Your task to perform on an android device: remove spam from my inbox in the gmail app Image 0: 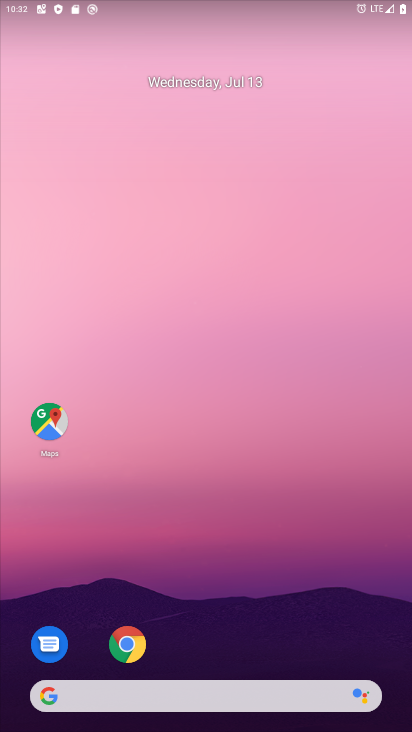
Step 0: drag from (194, 729) to (194, 628)
Your task to perform on an android device: remove spam from my inbox in the gmail app Image 1: 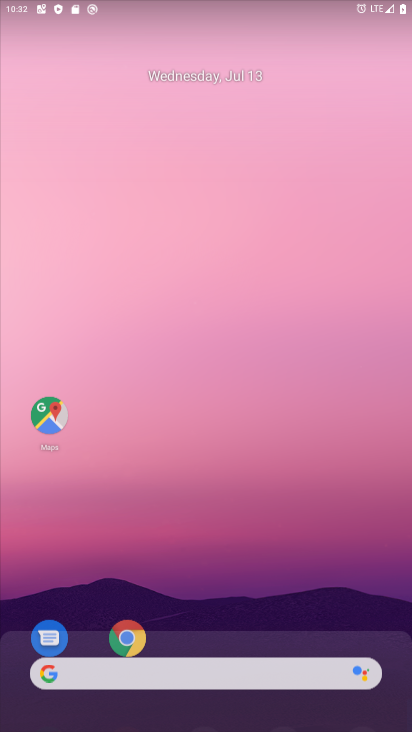
Step 1: drag from (167, 246) to (163, 120)
Your task to perform on an android device: remove spam from my inbox in the gmail app Image 2: 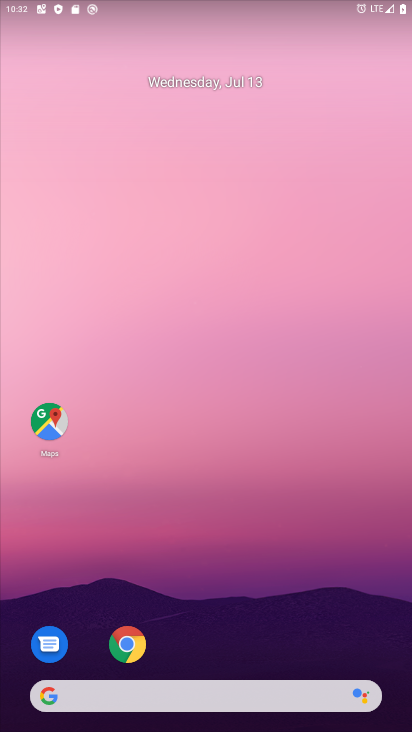
Step 2: click (245, 726)
Your task to perform on an android device: remove spam from my inbox in the gmail app Image 3: 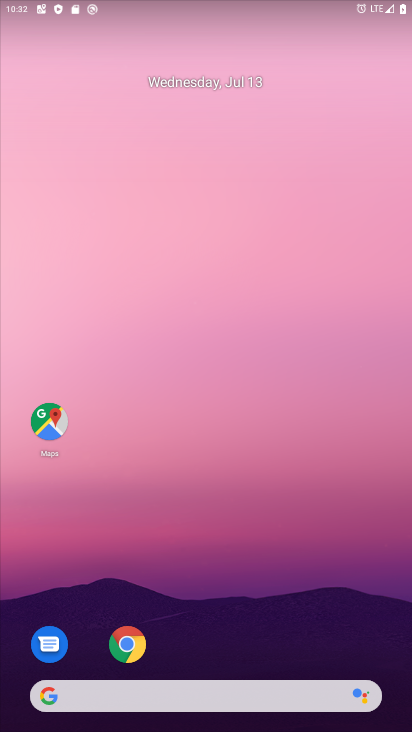
Step 3: click (204, 205)
Your task to perform on an android device: remove spam from my inbox in the gmail app Image 4: 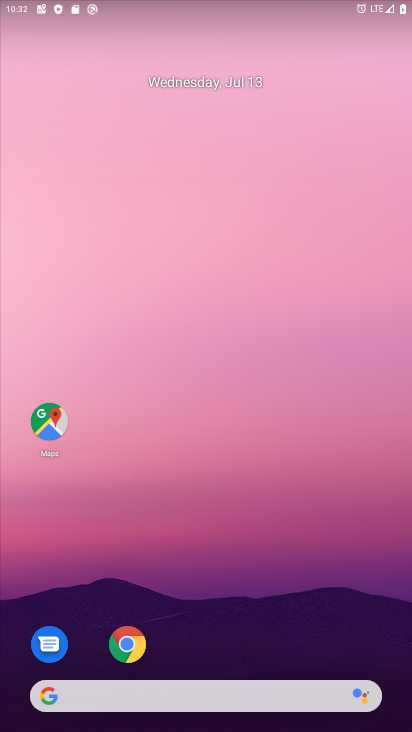
Step 4: drag from (238, 724) to (238, 68)
Your task to perform on an android device: remove spam from my inbox in the gmail app Image 5: 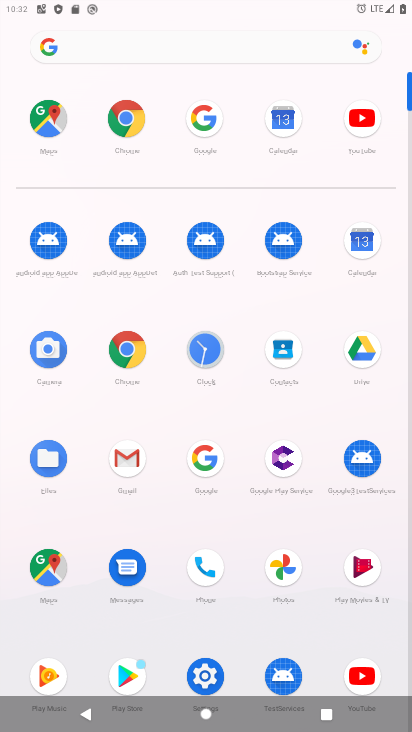
Step 5: click (126, 461)
Your task to perform on an android device: remove spam from my inbox in the gmail app Image 6: 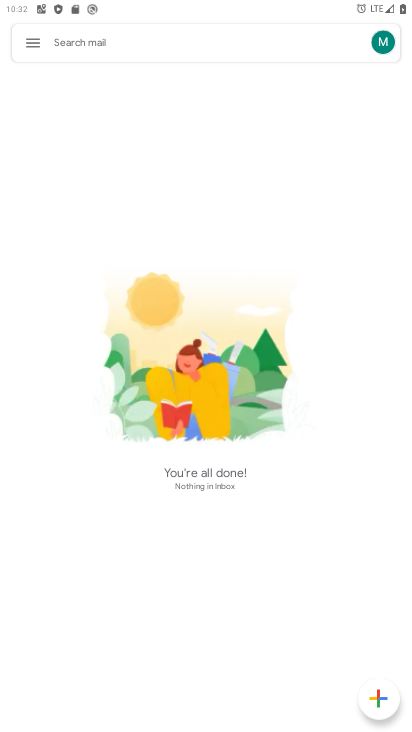
Step 6: task complete